Your task to perform on an android device: make emails show in primary in the gmail app Image 0: 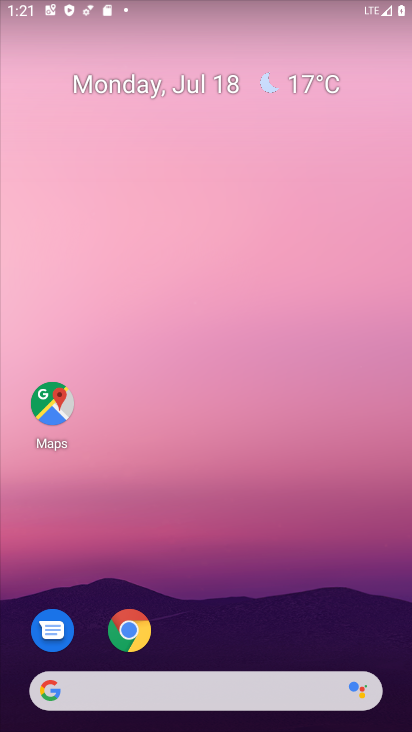
Step 0: drag from (257, 605) to (301, 20)
Your task to perform on an android device: make emails show in primary in the gmail app Image 1: 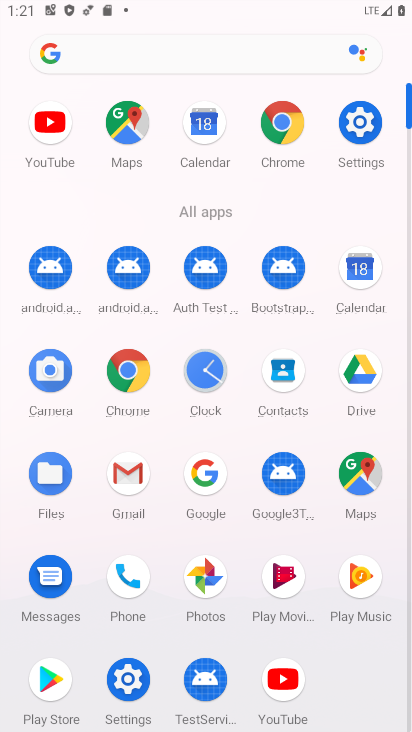
Step 1: click (127, 462)
Your task to perform on an android device: make emails show in primary in the gmail app Image 2: 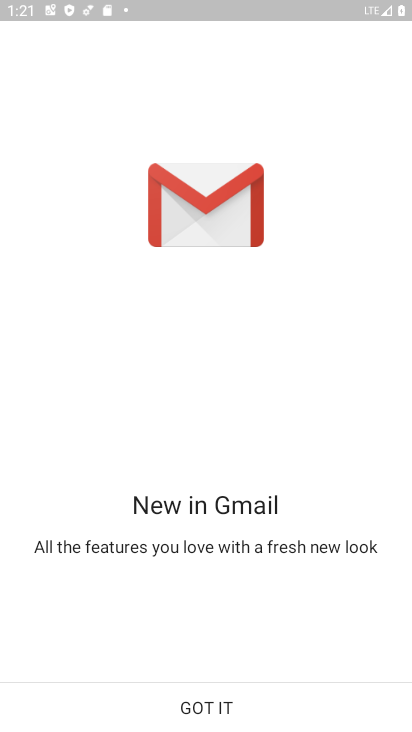
Step 2: click (269, 702)
Your task to perform on an android device: make emails show in primary in the gmail app Image 3: 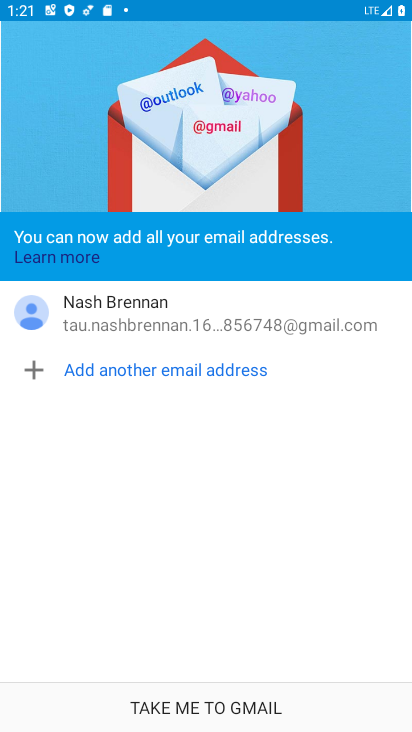
Step 3: click (237, 694)
Your task to perform on an android device: make emails show in primary in the gmail app Image 4: 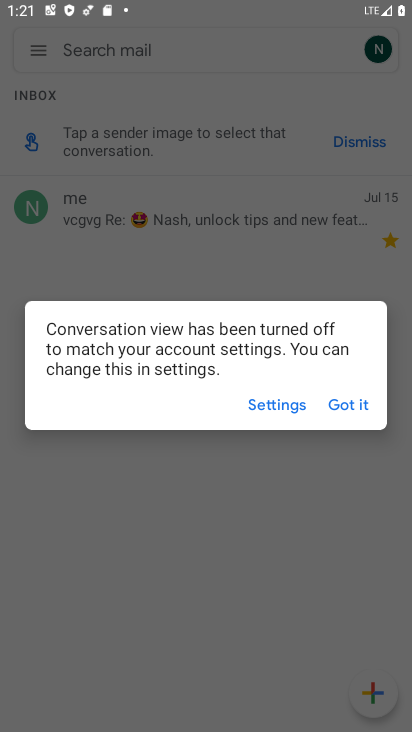
Step 4: click (351, 405)
Your task to perform on an android device: make emails show in primary in the gmail app Image 5: 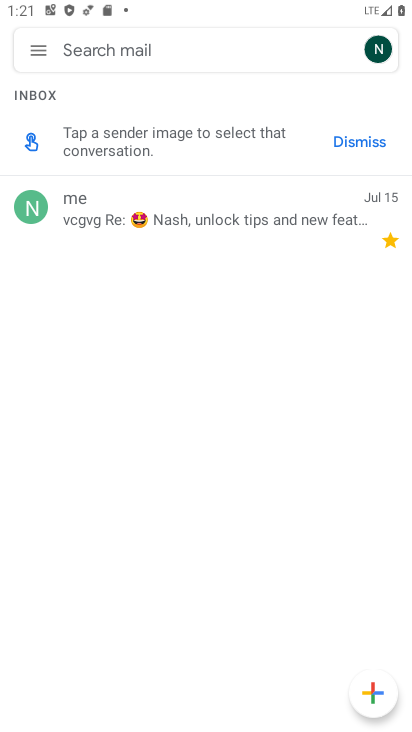
Step 5: click (37, 53)
Your task to perform on an android device: make emails show in primary in the gmail app Image 6: 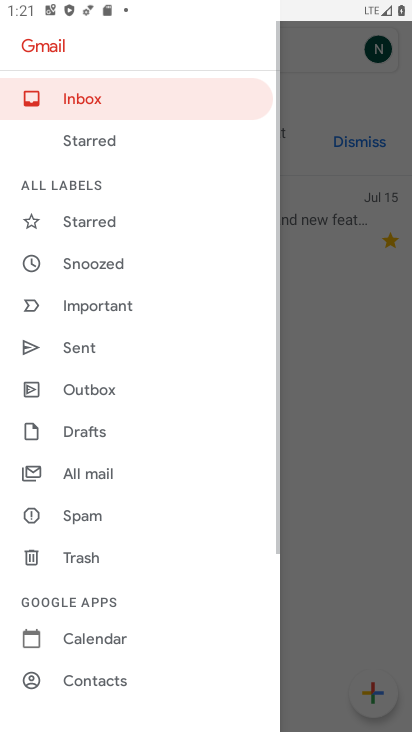
Step 6: drag from (153, 446) to (154, 333)
Your task to perform on an android device: make emails show in primary in the gmail app Image 7: 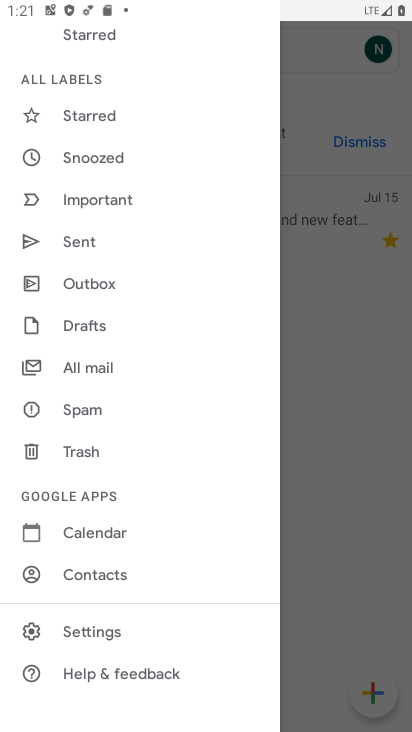
Step 7: click (102, 631)
Your task to perform on an android device: make emails show in primary in the gmail app Image 8: 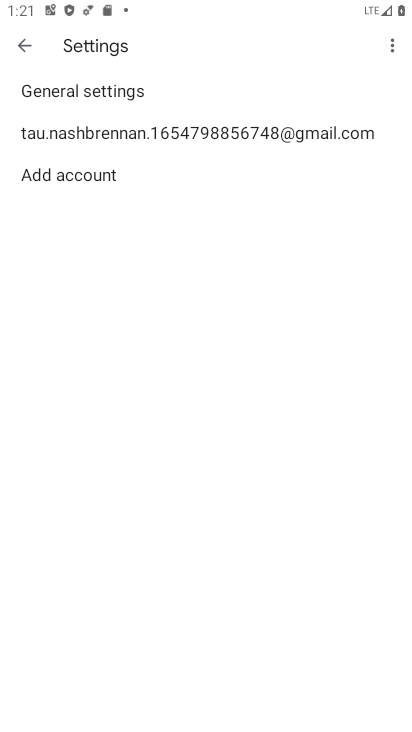
Step 8: click (118, 131)
Your task to perform on an android device: make emails show in primary in the gmail app Image 9: 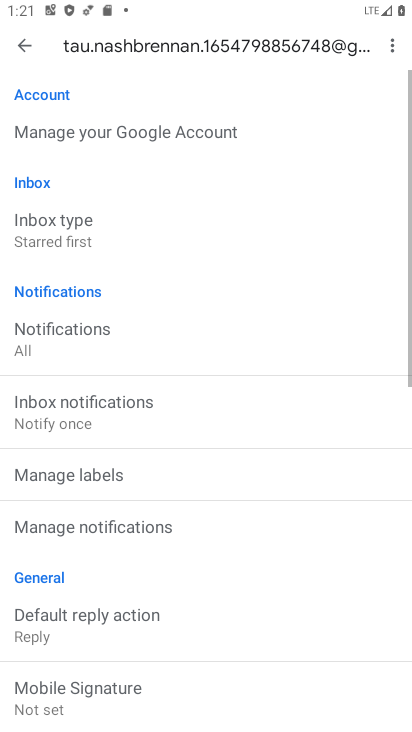
Step 9: click (85, 224)
Your task to perform on an android device: make emails show in primary in the gmail app Image 10: 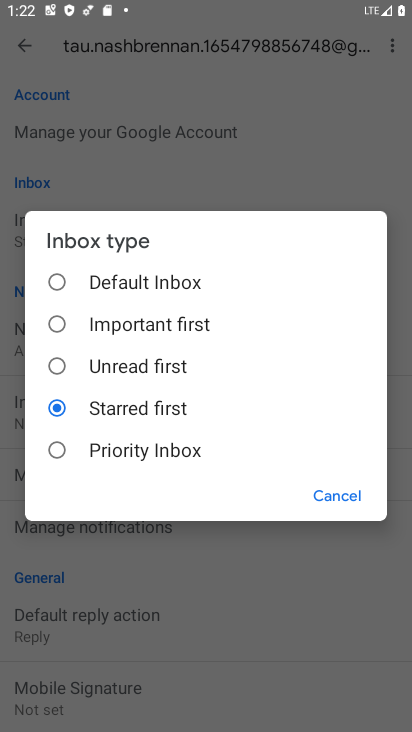
Step 10: click (52, 270)
Your task to perform on an android device: make emails show in primary in the gmail app Image 11: 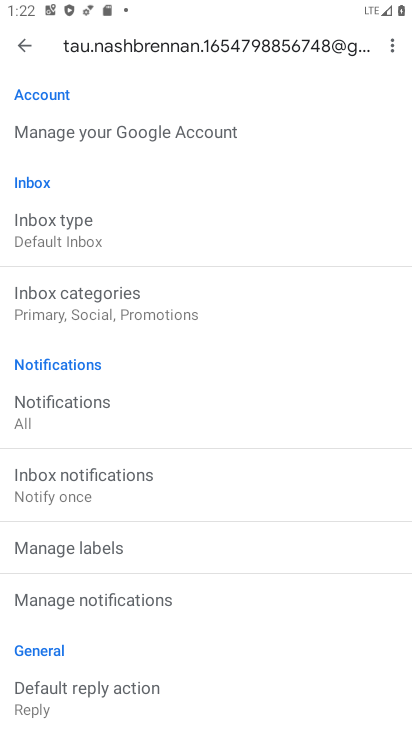
Step 11: click (67, 301)
Your task to perform on an android device: make emails show in primary in the gmail app Image 12: 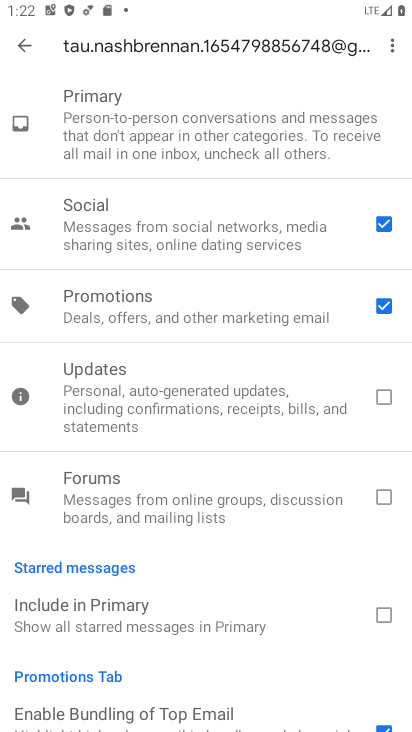
Step 12: click (388, 293)
Your task to perform on an android device: make emails show in primary in the gmail app Image 13: 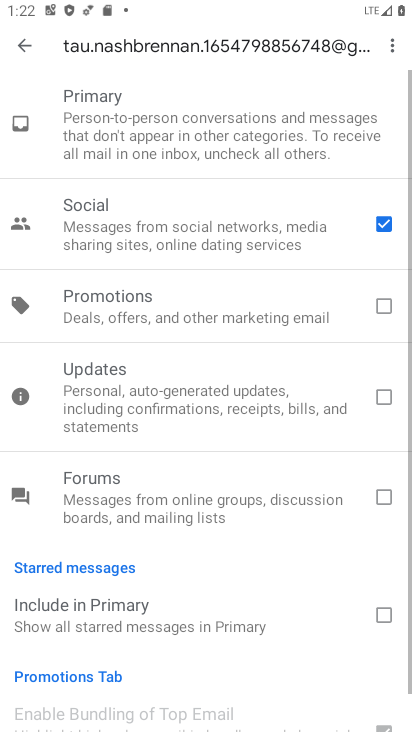
Step 13: click (377, 213)
Your task to perform on an android device: make emails show in primary in the gmail app Image 14: 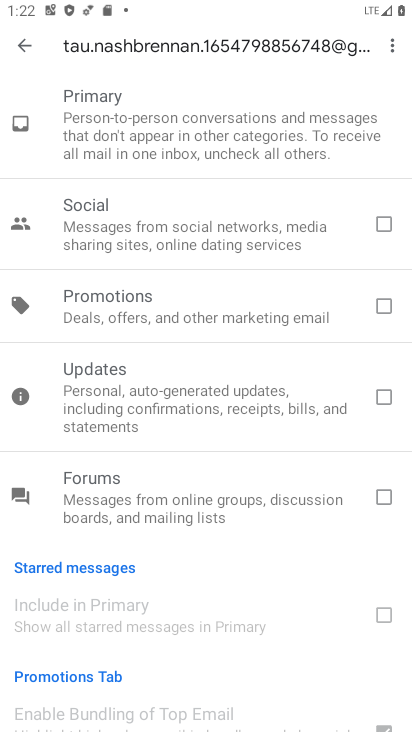
Step 14: task complete